Your task to perform on an android device: open chrome privacy settings Image 0: 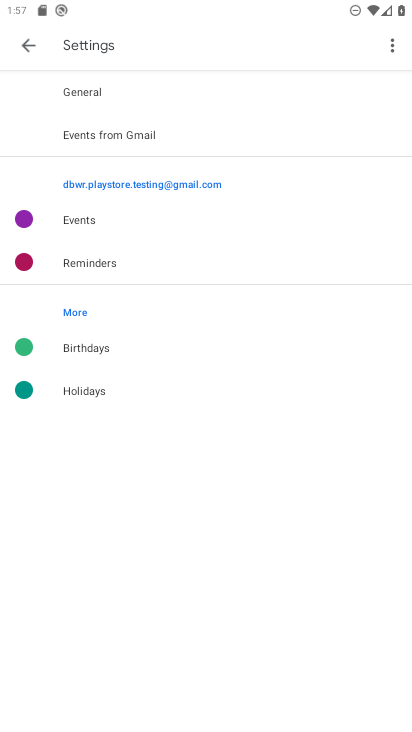
Step 0: press home button
Your task to perform on an android device: open chrome privacy settings Image 1: 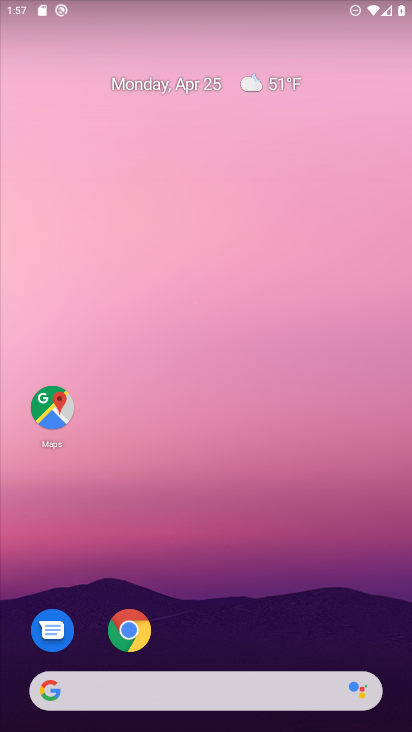
Step 1: drag from (335, 565) to (326, 108)
Your task to perform on an android device: open chrome privacy settings Image 2: 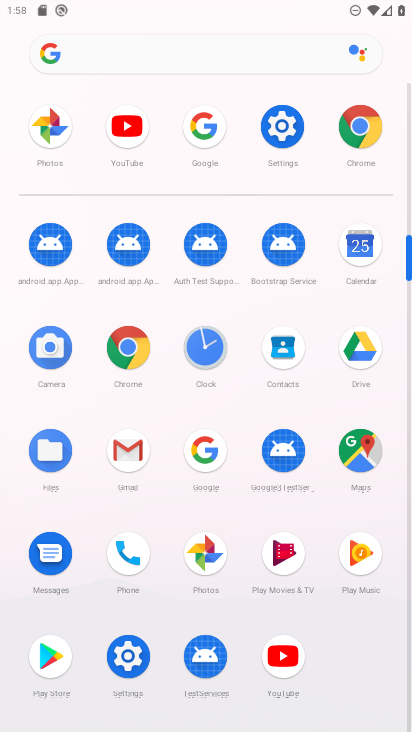
Step 2: click (280, 128)
Your task to perform on an android device: open chrome privacy settings Image 3: 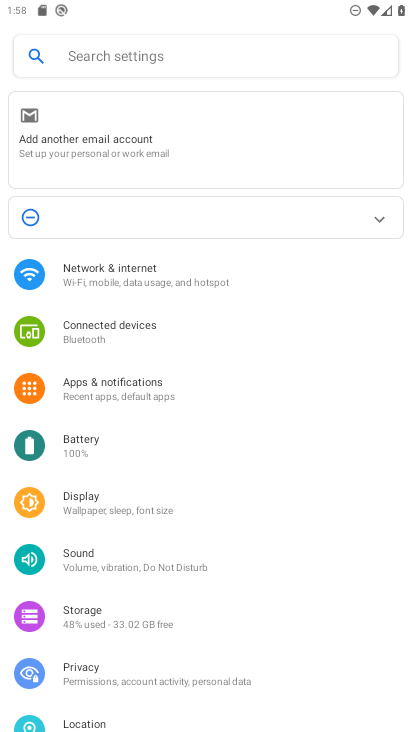
Step 3: drag from (157, 569) to (195, 202)
Your task to perform on an android device: open chrome privacy settings Image 4: 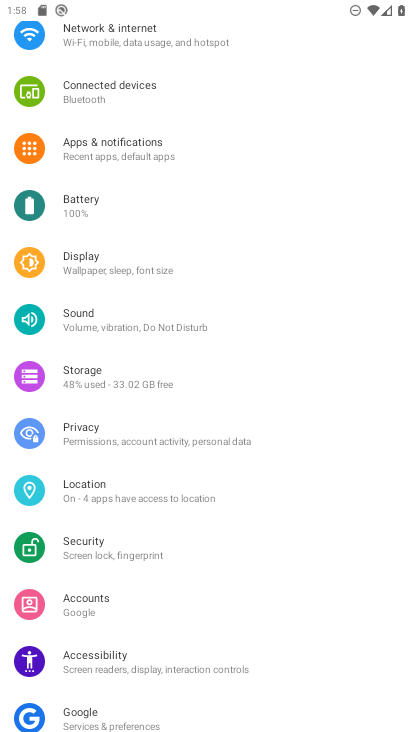
Step 4: drag from (212, 255) to (213, 611)
Your task to perform on an android device: open chrome privacy settings Image 5: 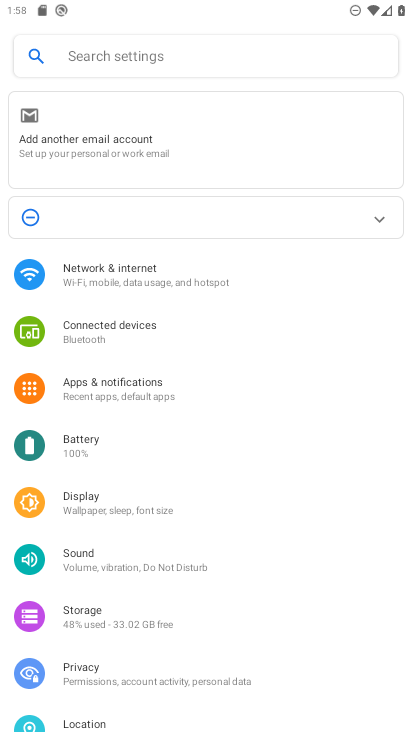
Step 5: drag from (203, 285) to (208, 598)
Your task to perform on an android device: open chrome privacy settings Image 6: 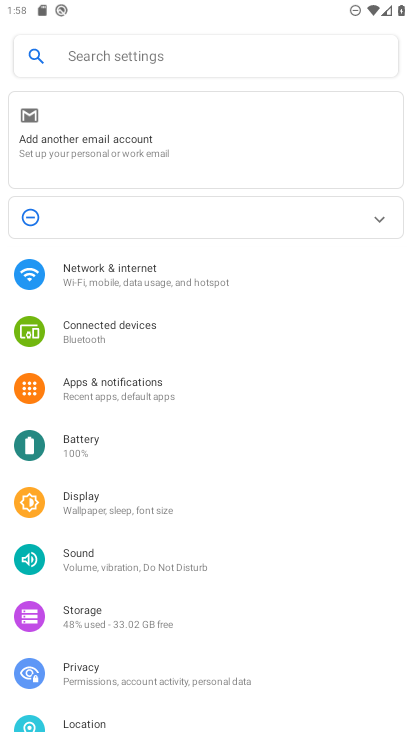
Step 6: drag from (196, 617) to (229, 196)
Your task to perform on an android device: open chrome privacy settings Image 7: 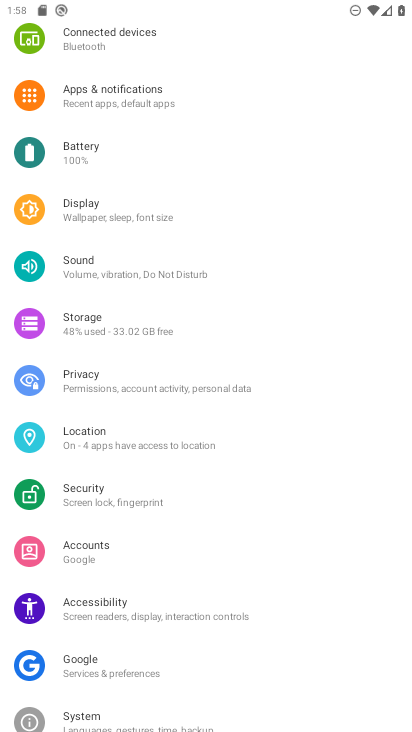
Step 7: click (121, 393)
Your task to perform on an android device: open chrome privacy settings Image 8: 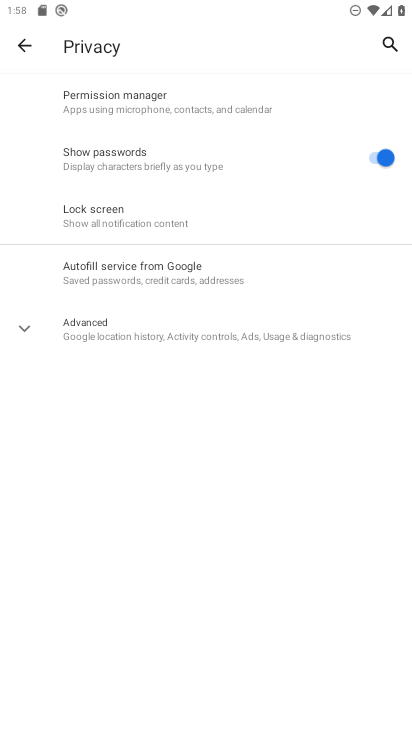
Step 8: task complete